Your task to perform on an android device: Clear all items from cart on costco. Add rayovac triple a to the cart on costco Image 0: 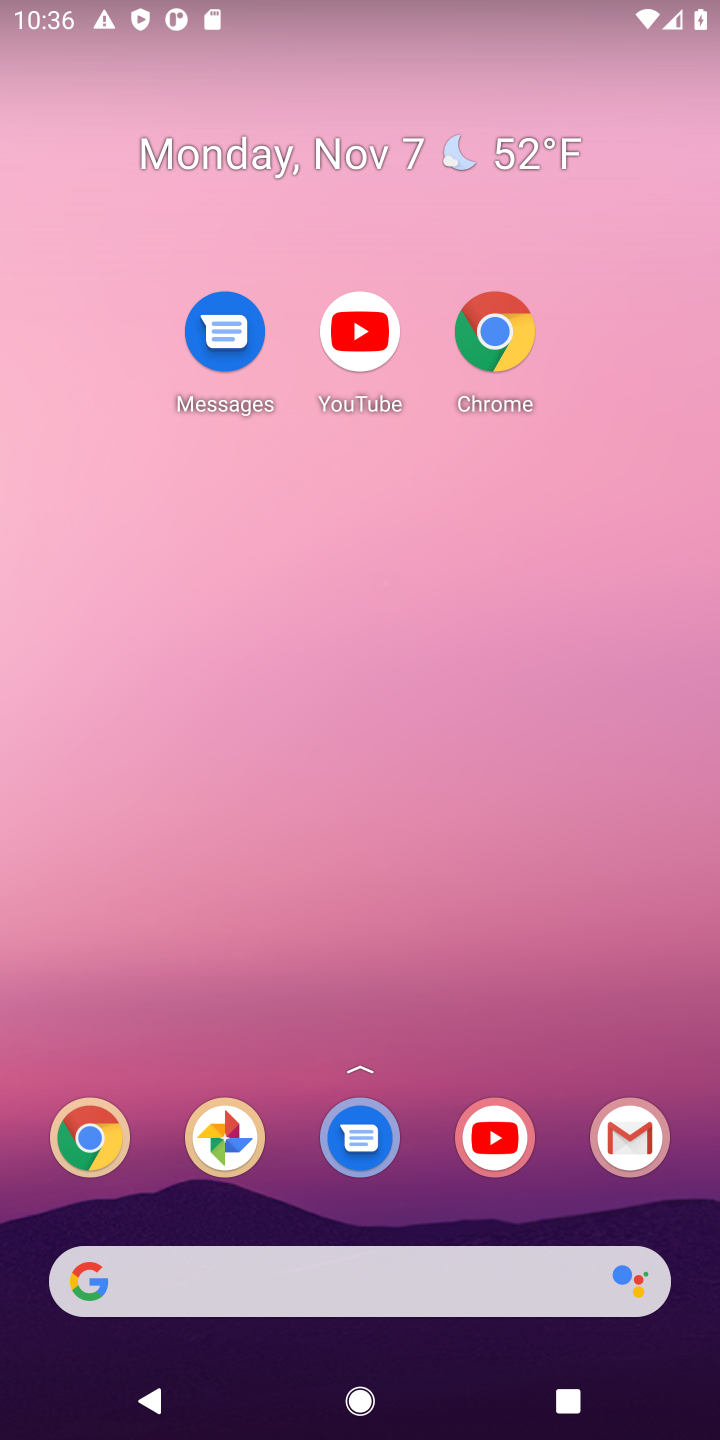
Step 0: press home button
Your task to perform on an android device: Clear all items from cart on costco. Add rayovac triple a to the cart on costco Image 1: 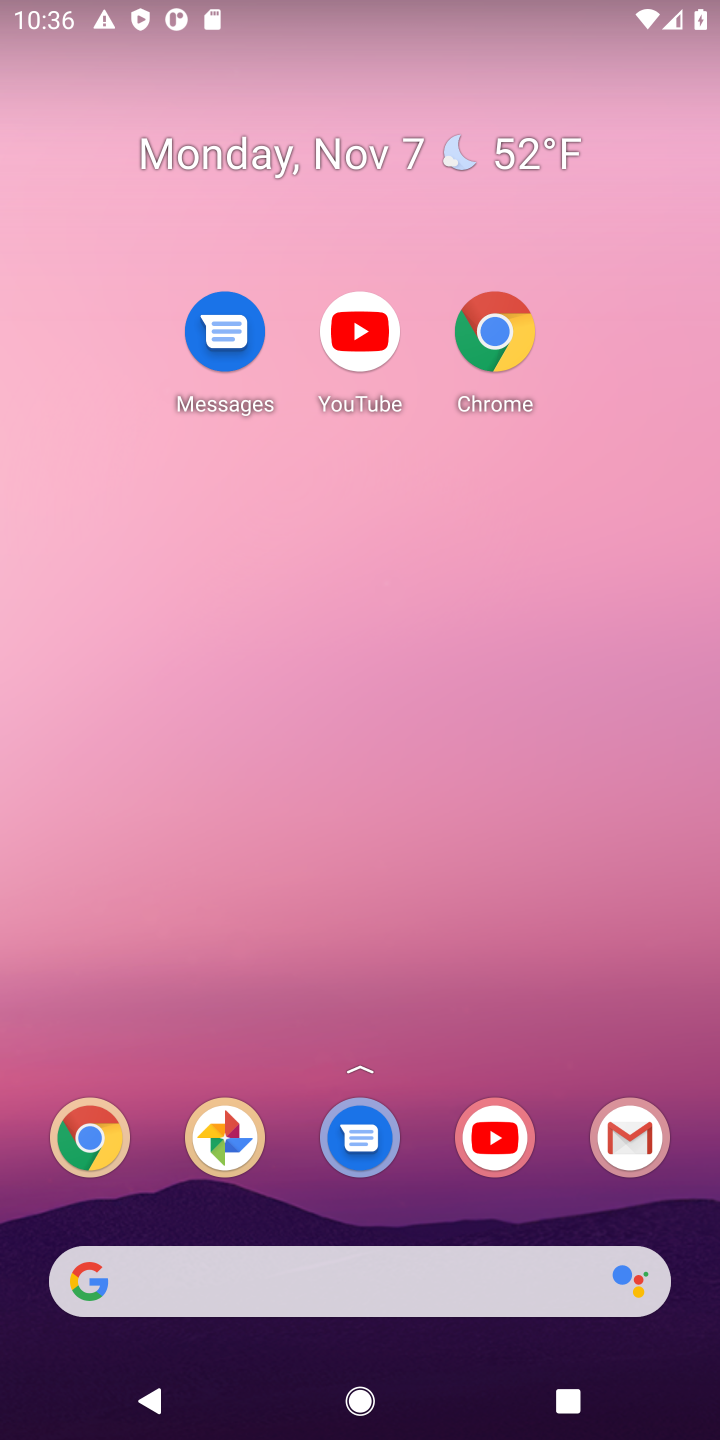
Step 1: click (249, 309)
Your task to perform on an android device: Clear all items from cart on costco. Add rayovac triple a to the cart on costco Image 2: 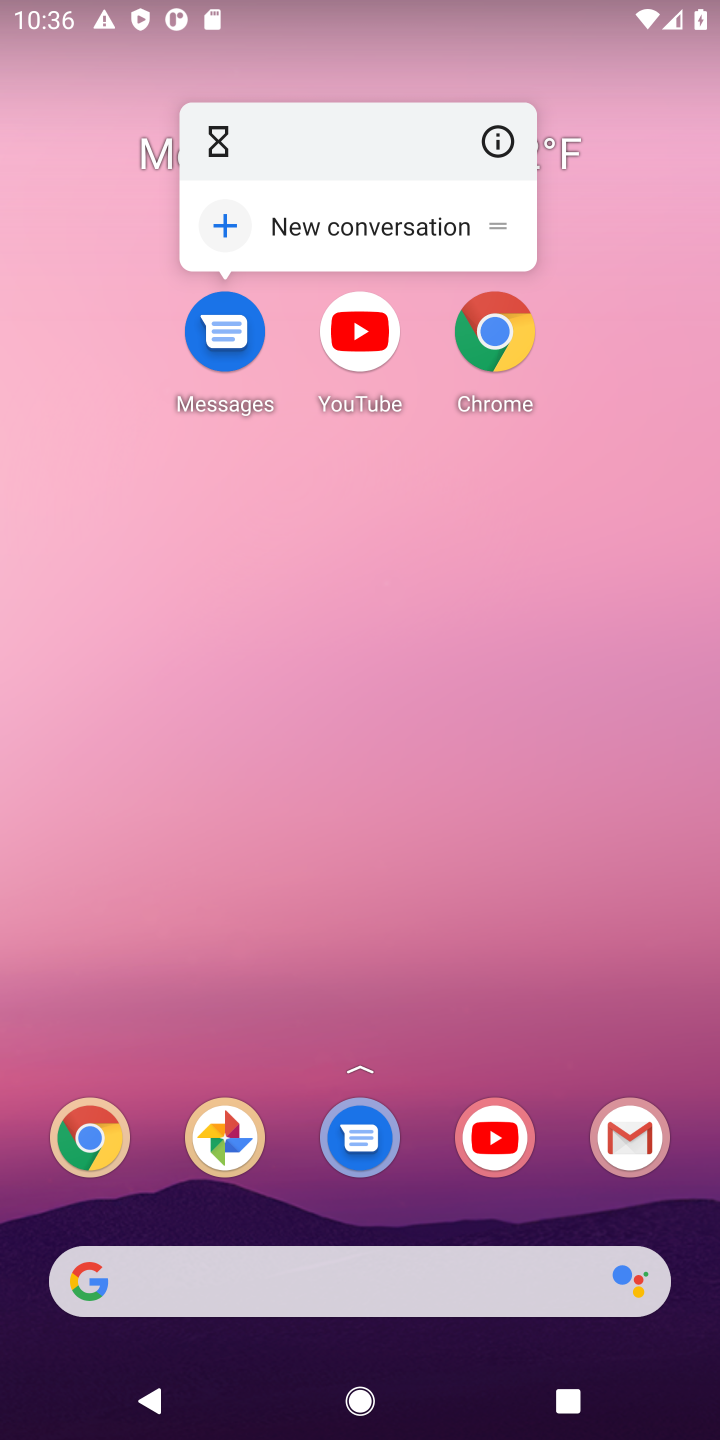
Step 2: click (303, 1214)
Your task to perform on an android device: Clear all items from cart on costco. Add rayovac triple a to the cart on costco Image 3: 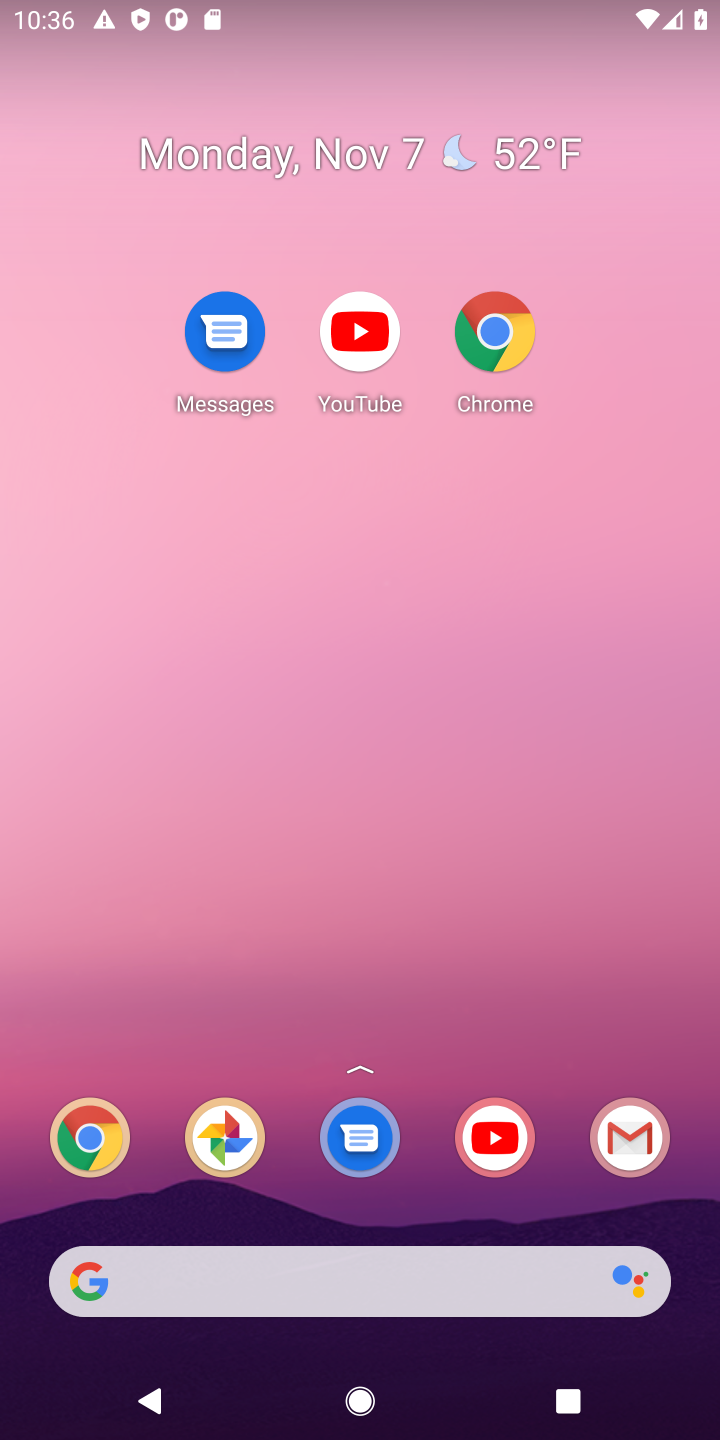
Step 3: drag from (294, 1237) to (196, 287)
Your task to perform on an android device: Clear all items from cart on costco. Add rayovac triple a to the cart on costco Image 4: 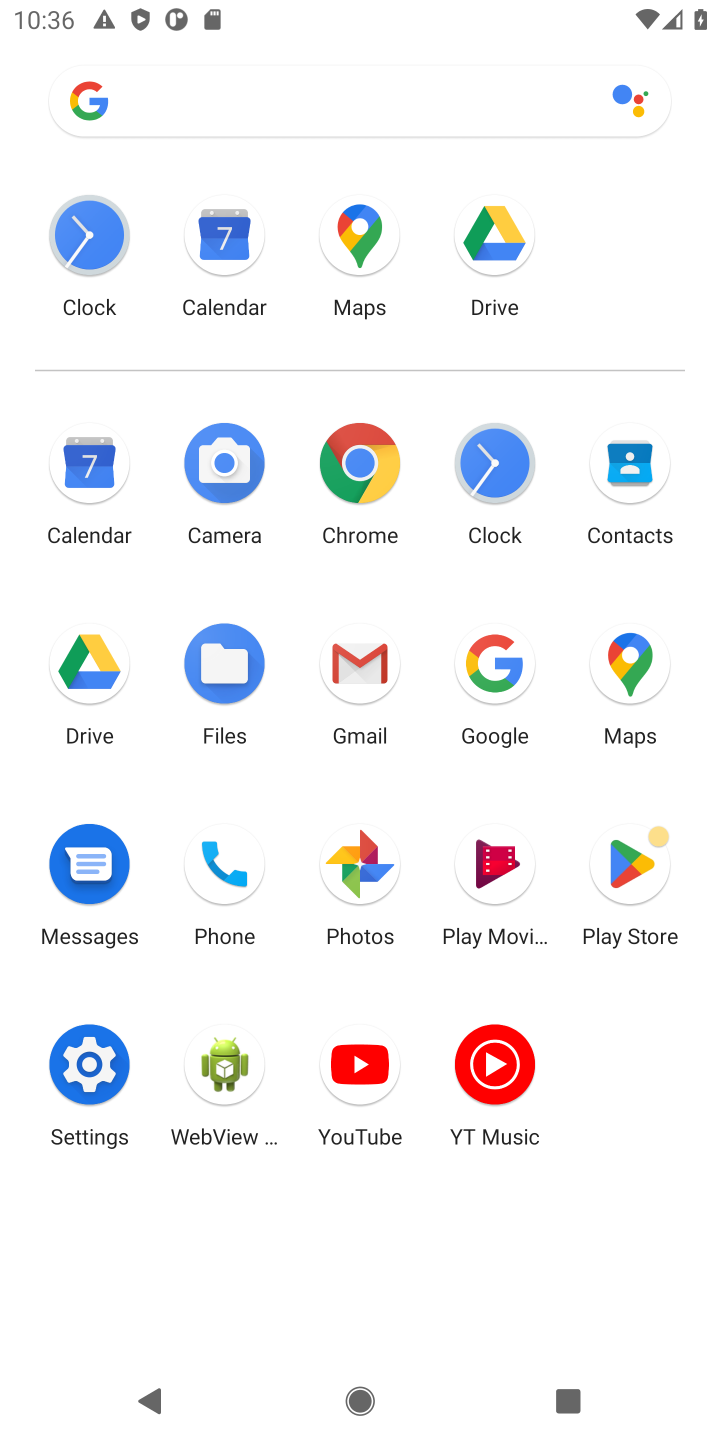
Step 4: click (362, 464)
Your task to perform on an android device: Clear all items from cart on costco. Add rayovac triple a to the cart on costco Image 5: 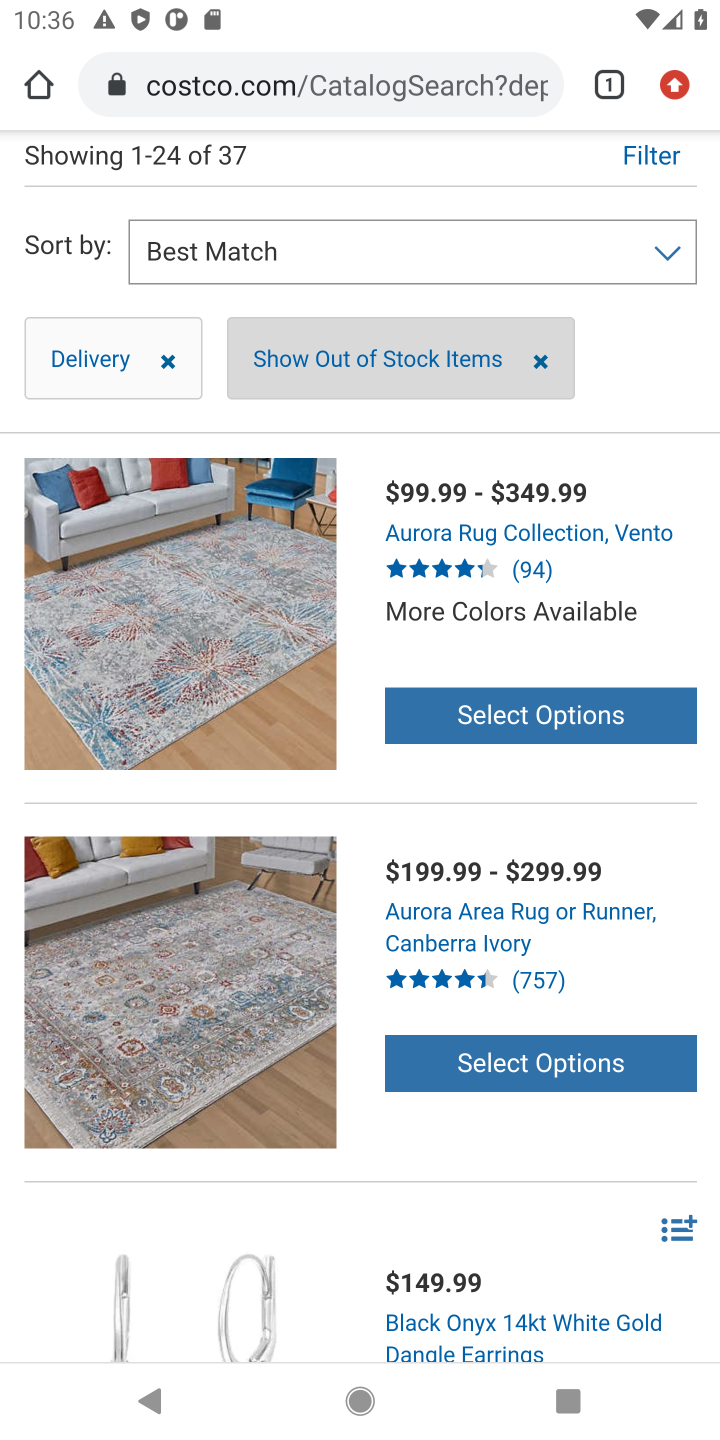
Step 5: drag from (464, 248) to (446, 1108)
Your task to perform on an android device: Clear all items from cart on costco. Add rayovac triple a to the cart on costco Image 6: 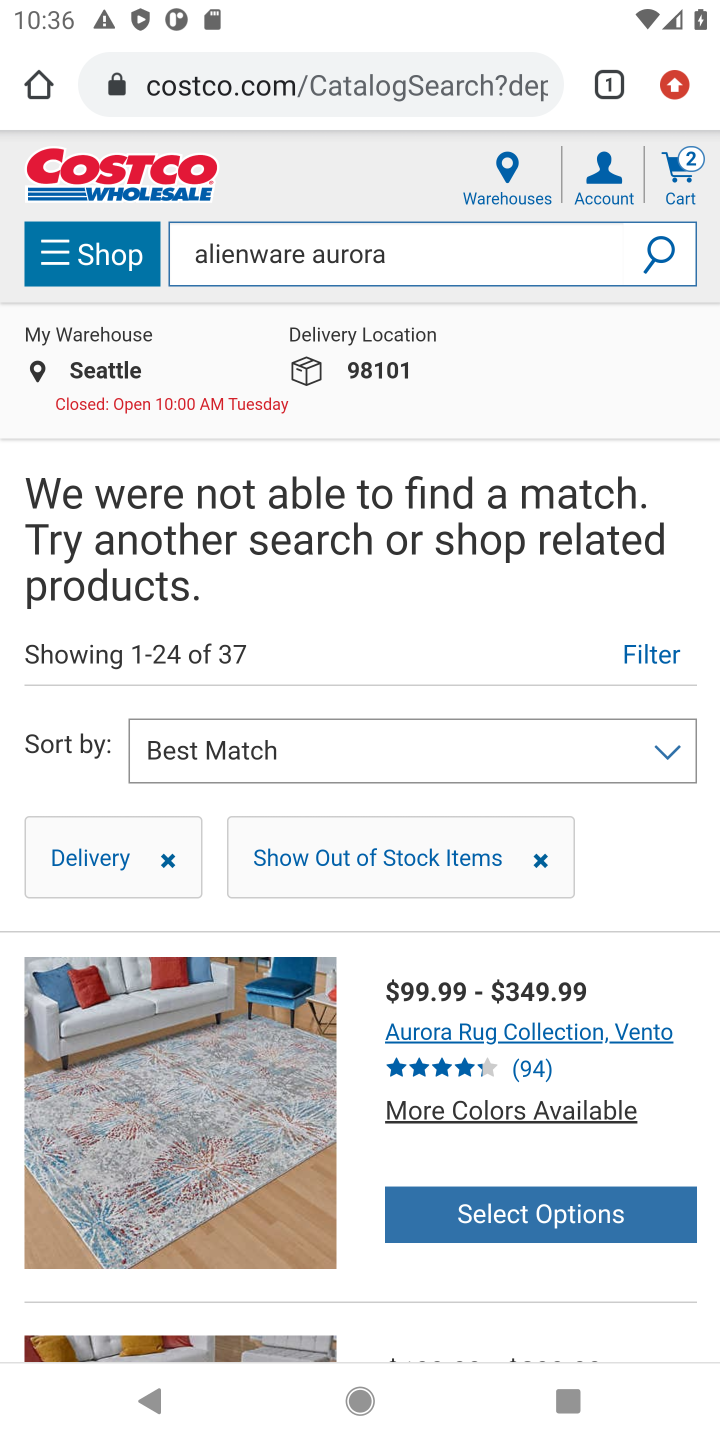
Step 6: click (696, 182)
Your task to perform on an android device: Clear all items from cart on costco. Add rayovac triple a to the cart on costco Image 7: 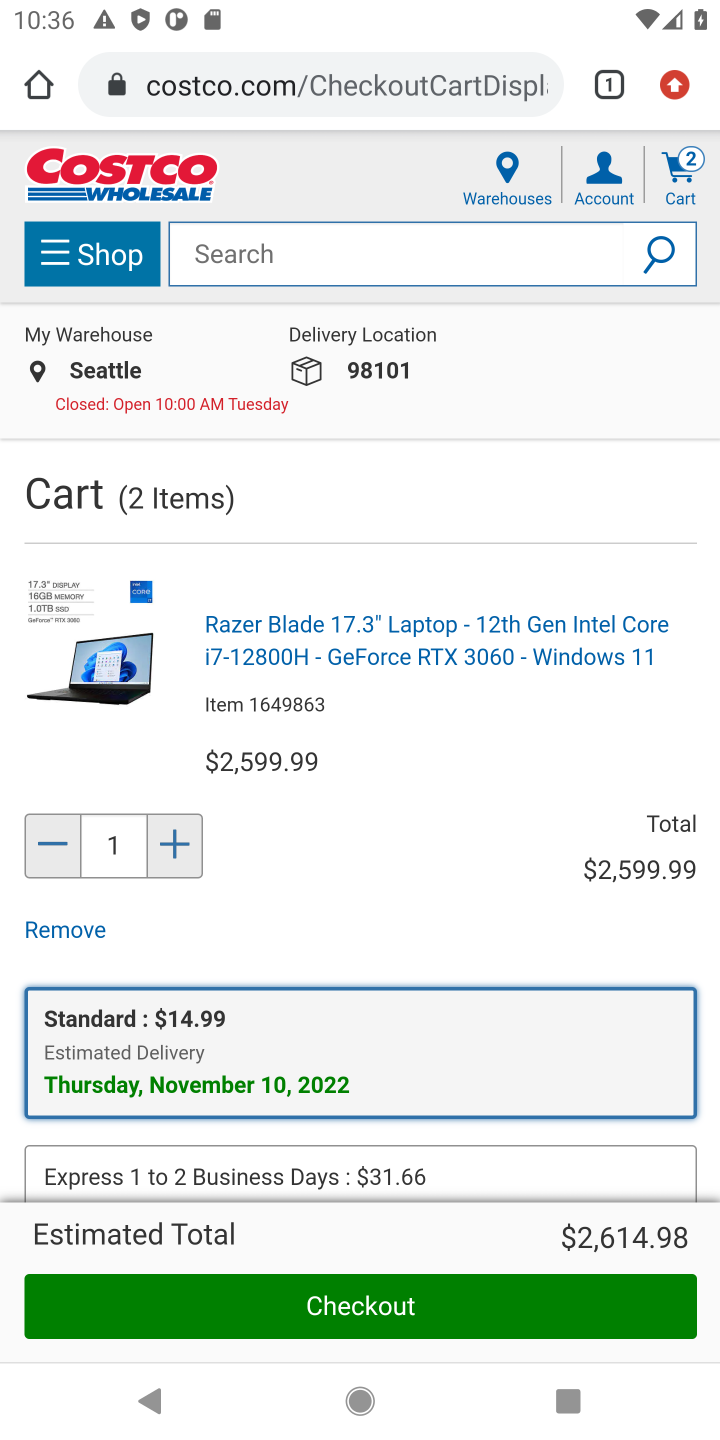
Step 7: drag from (310, 915) to (323, 546)
Your task to perform on an android device: Clear all items from cart on costco. Add rayovac triple a to the cart on costco Image 8: 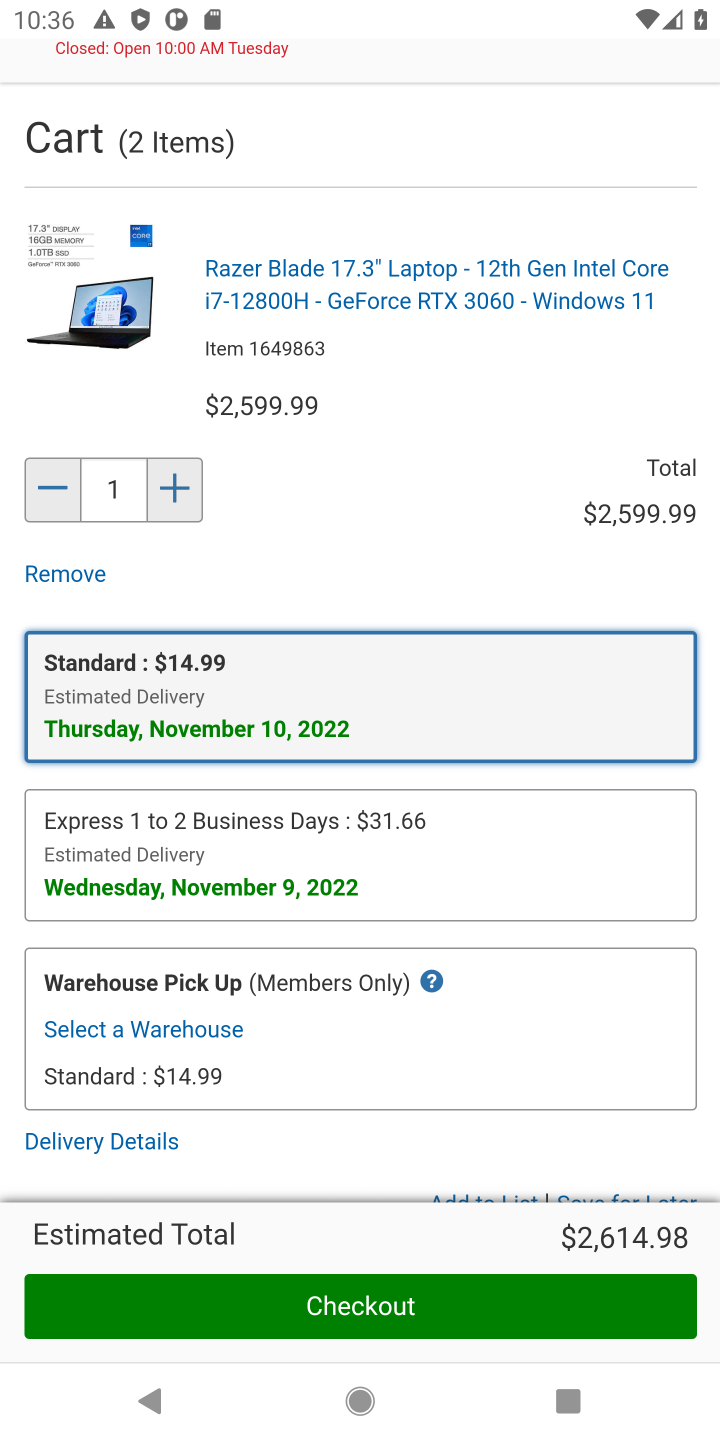
Step 8: click (82, 576)
Your task to perform on an android device: Clear all items from cart on costco. Add rayovac triple a to the cart on costco Image 9: 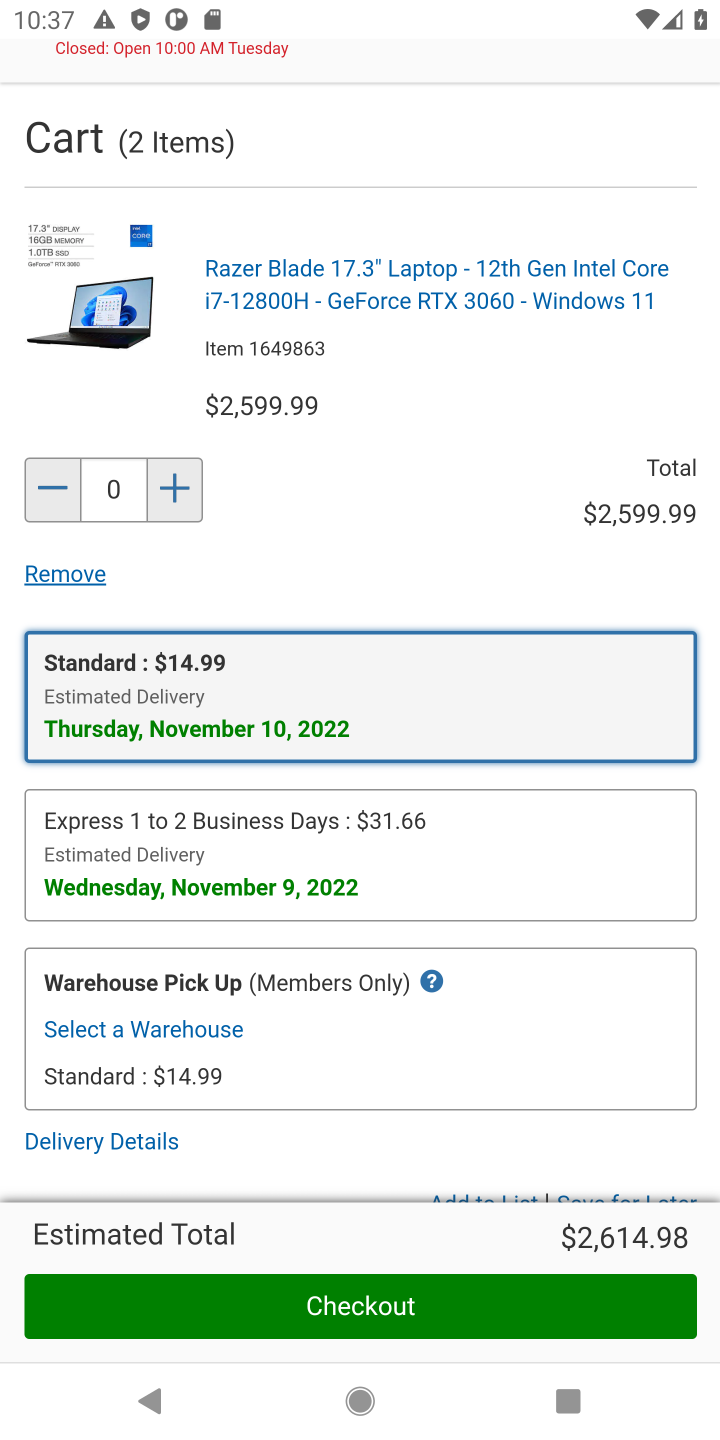
Step 9: click (69, 584)
Your task to perform on an android device: Clear all items from cart on costco. Add rayovac triple a to the cart on costco Image 10: 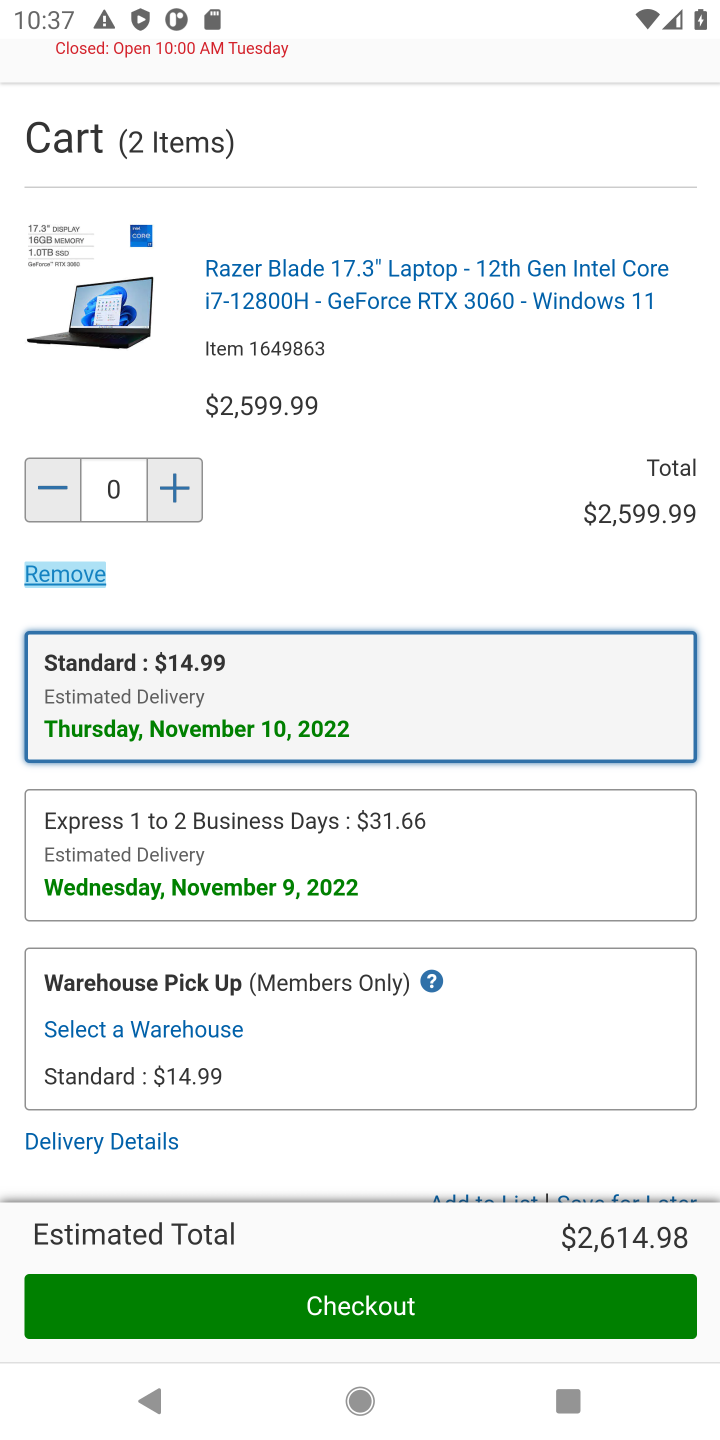
Step 10: click (69, 584)
Your task to perform on an android device: Clear all items from cart on costco. Add rayovac triple a to the cart on costco Image 11: 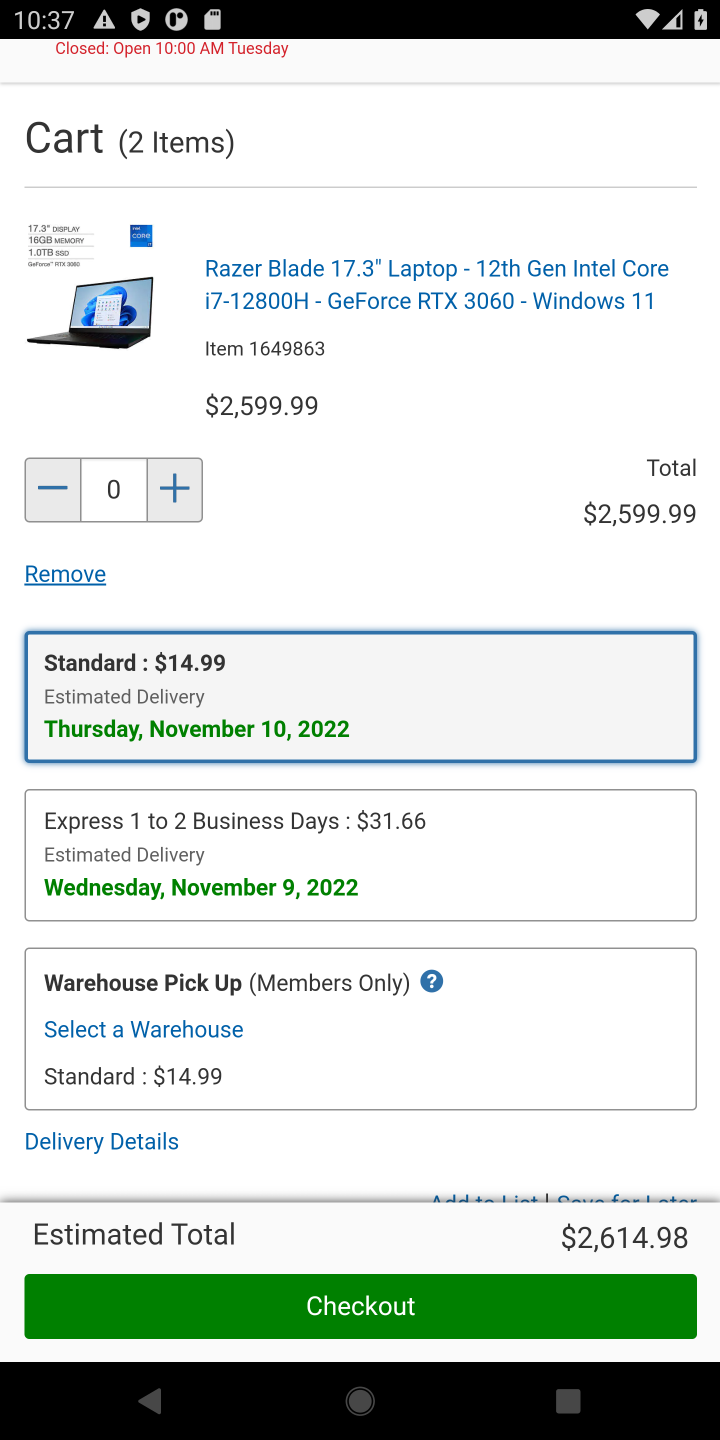
Step 11: click (69, 584)
Your task to perform on an android device: Clear all items from cart on costco. Add rayovac triple a to the cart on costco Image 12: 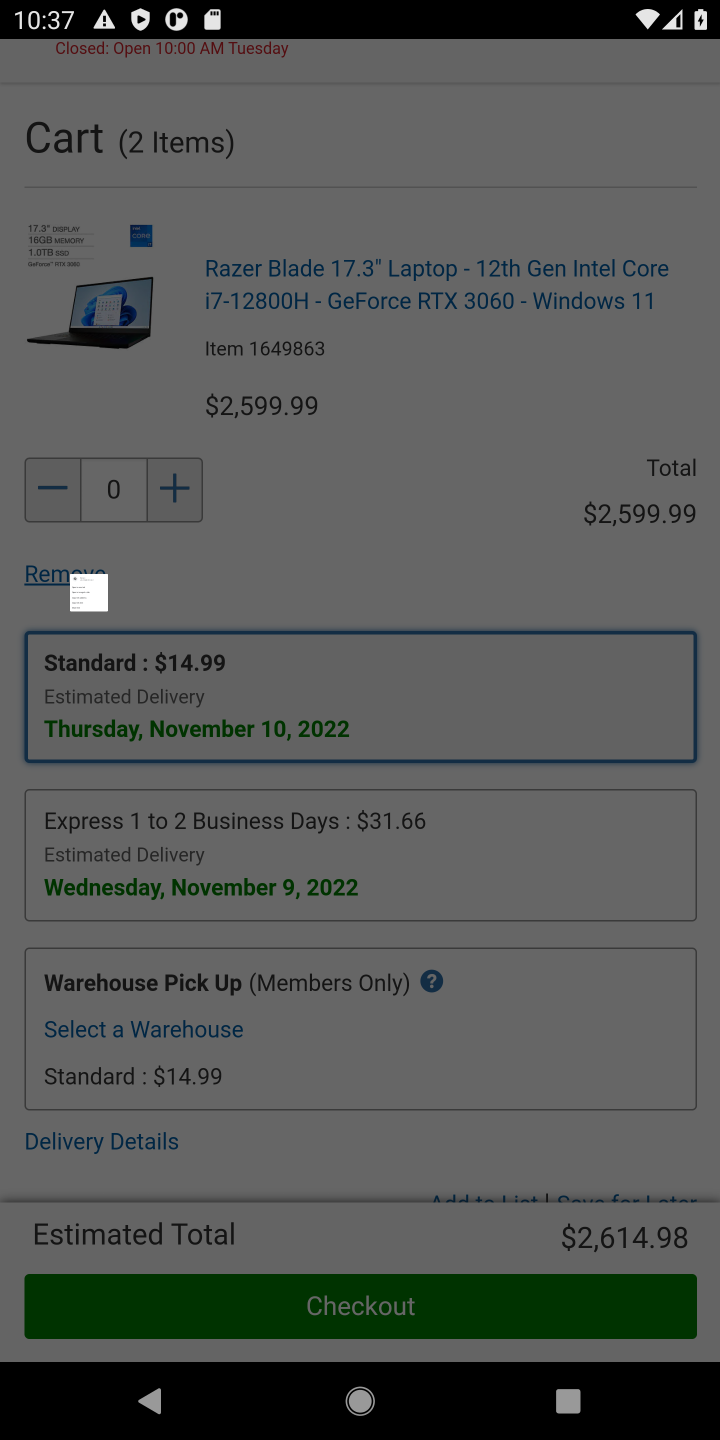
Step 12: click (69, 584)
Your task to perform on an android device: Clear all items from cart on costco. Add rayovac triple a to the cart on costco Image 13: 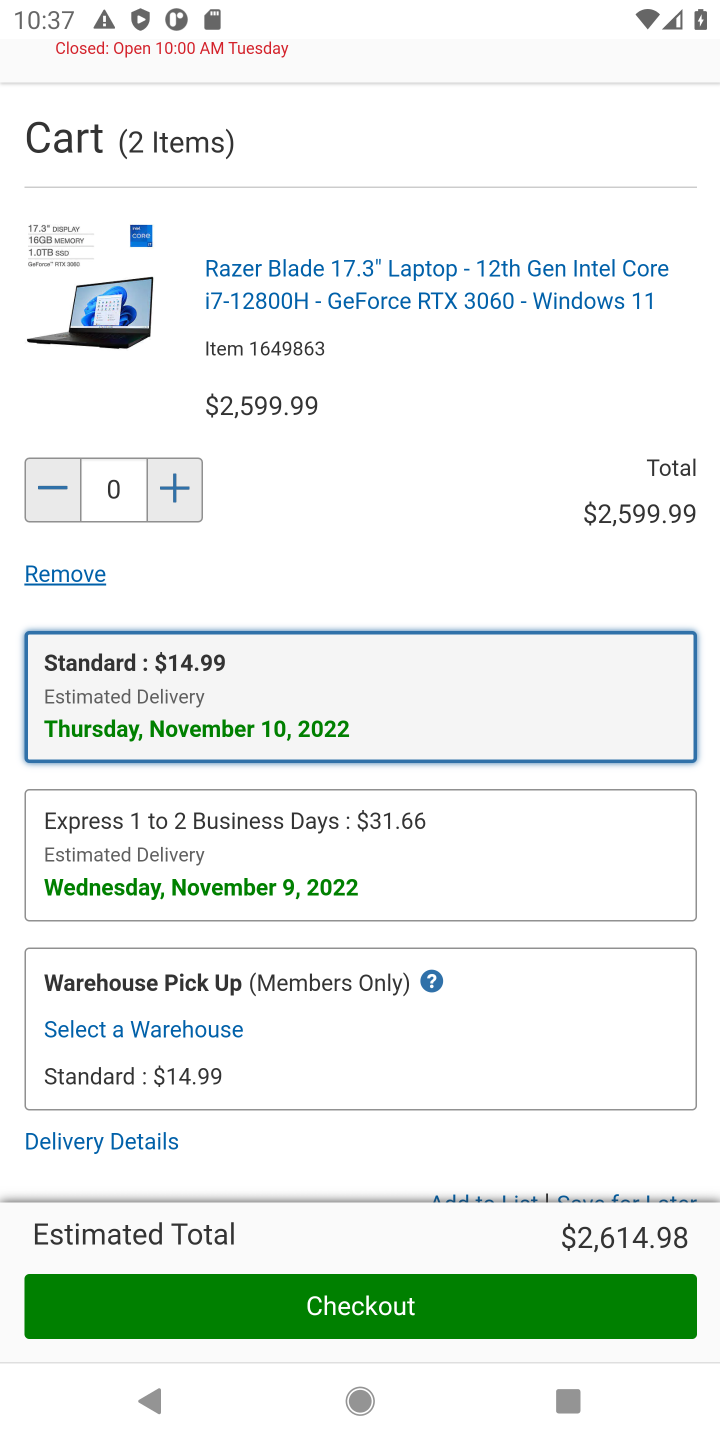
Step 13: click (69, 584)
Your task to perform on an android device: Clear all items from cart on costco. Add rayovac triple a to the cart on costco Image 14: 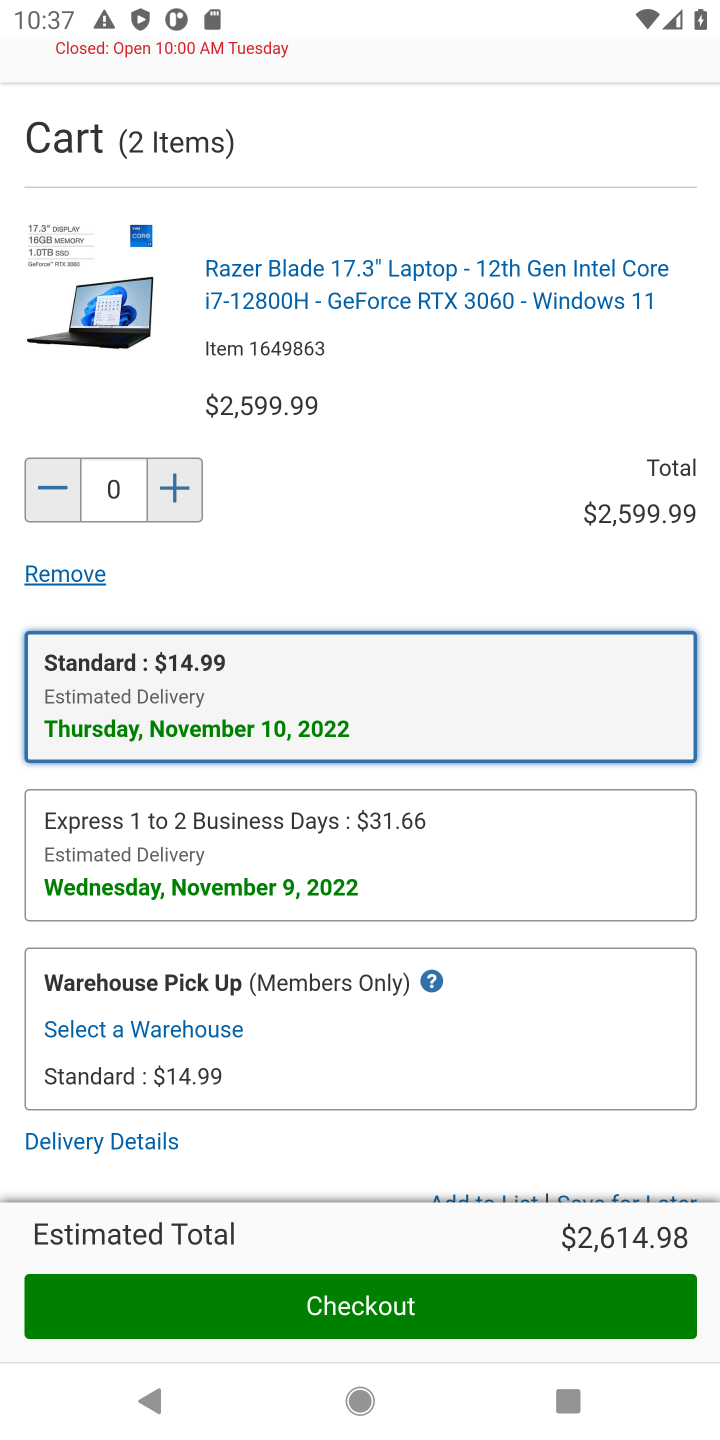
Step 14: click (69, 584)
Your task to perform on an android device: Clear all items from cart on costco. Add rayovac triple a to the cart on costco Image 15: 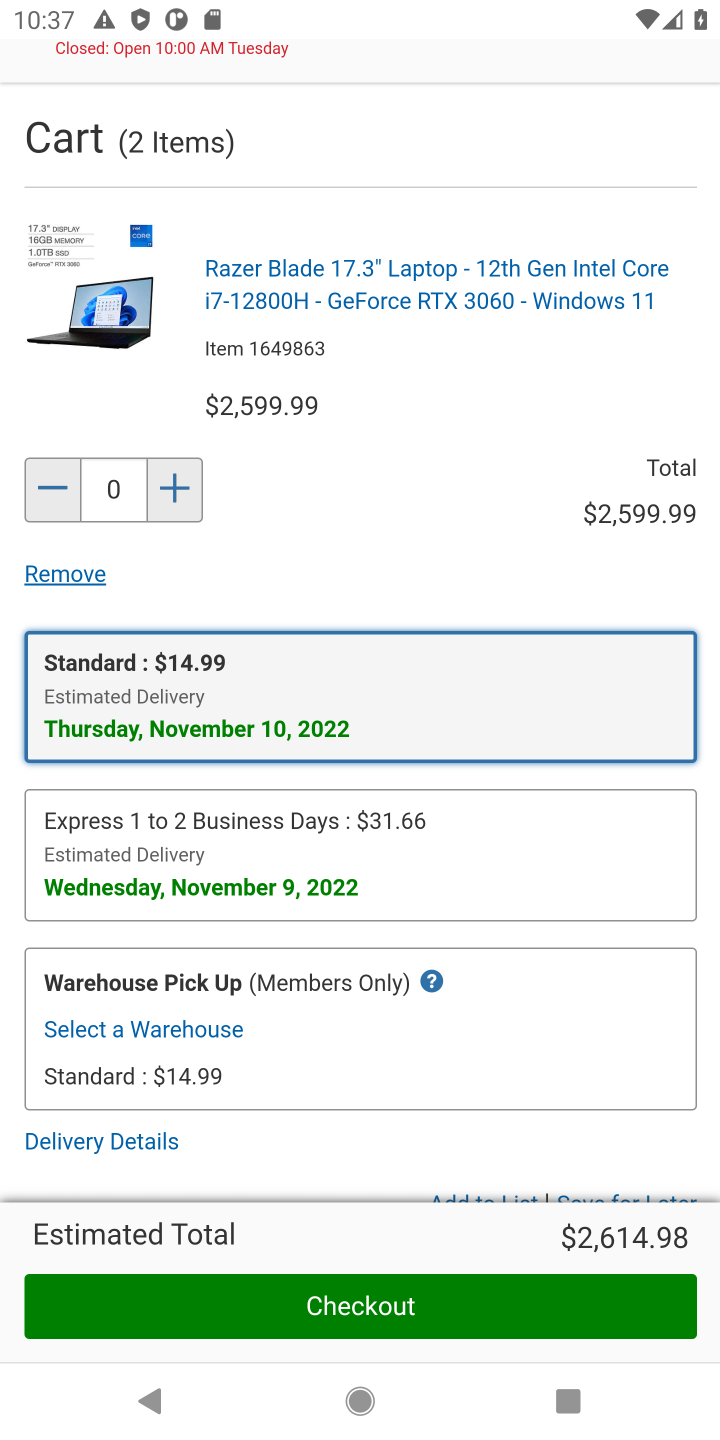
Step 15: click (62, 573)
Your task to perform on an android device: Clear all items from cart on costco. Add rayovac triple a to the cart on costco Image 16: 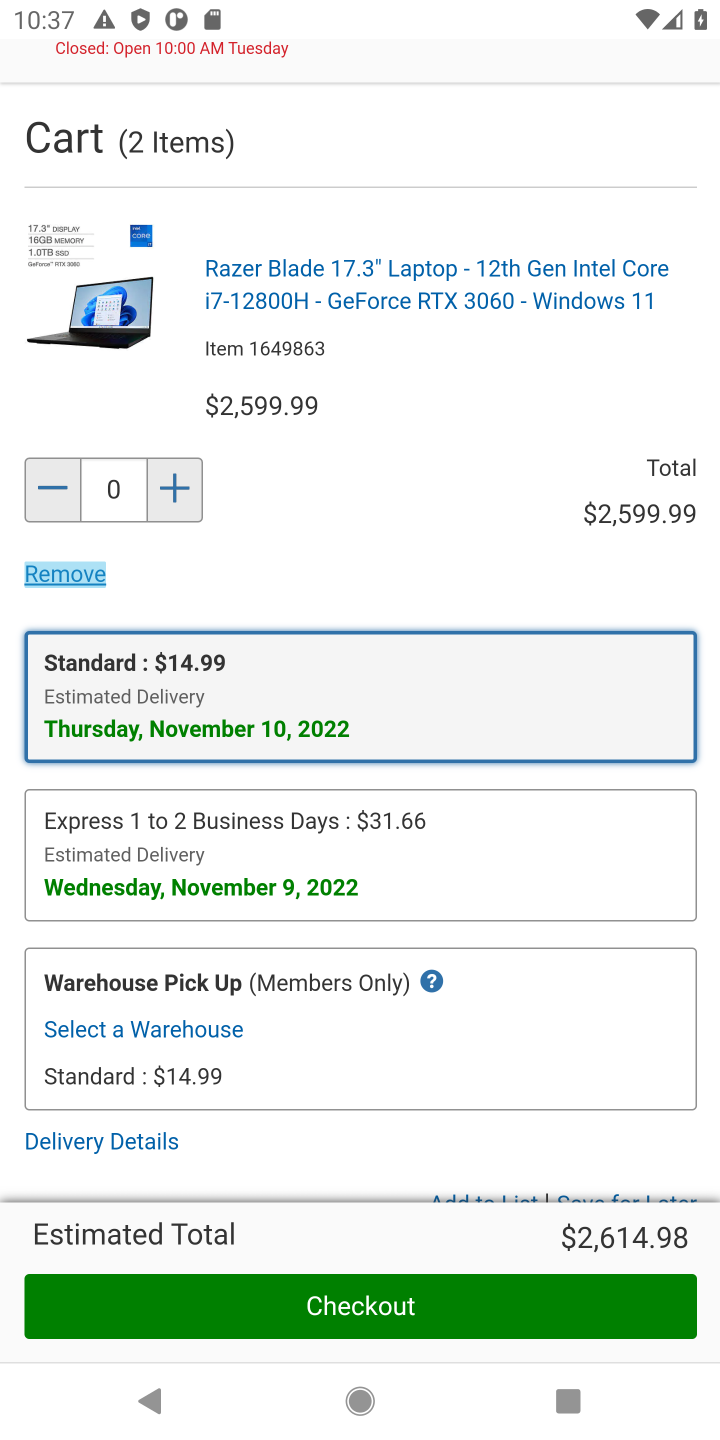
Step 16: click (62, 573)
Your task to perform on an android device: Clear all items from cart on costco. Add rayovac triple a to the cart on costco Image 17: 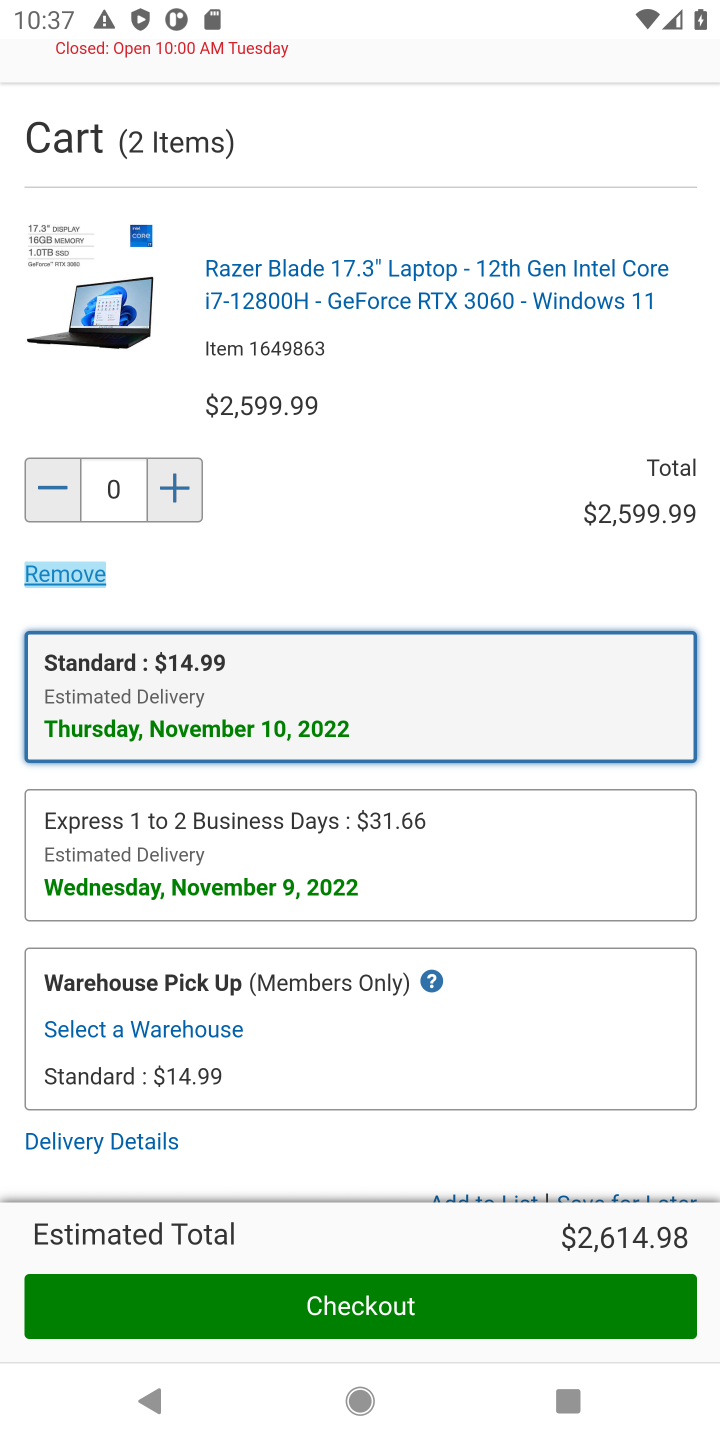
Step 17: click (62, 573)
Your task to perform on an android device: Clear all items from cart on costco. Add rayovac triple a to the cart on costco Image 18: 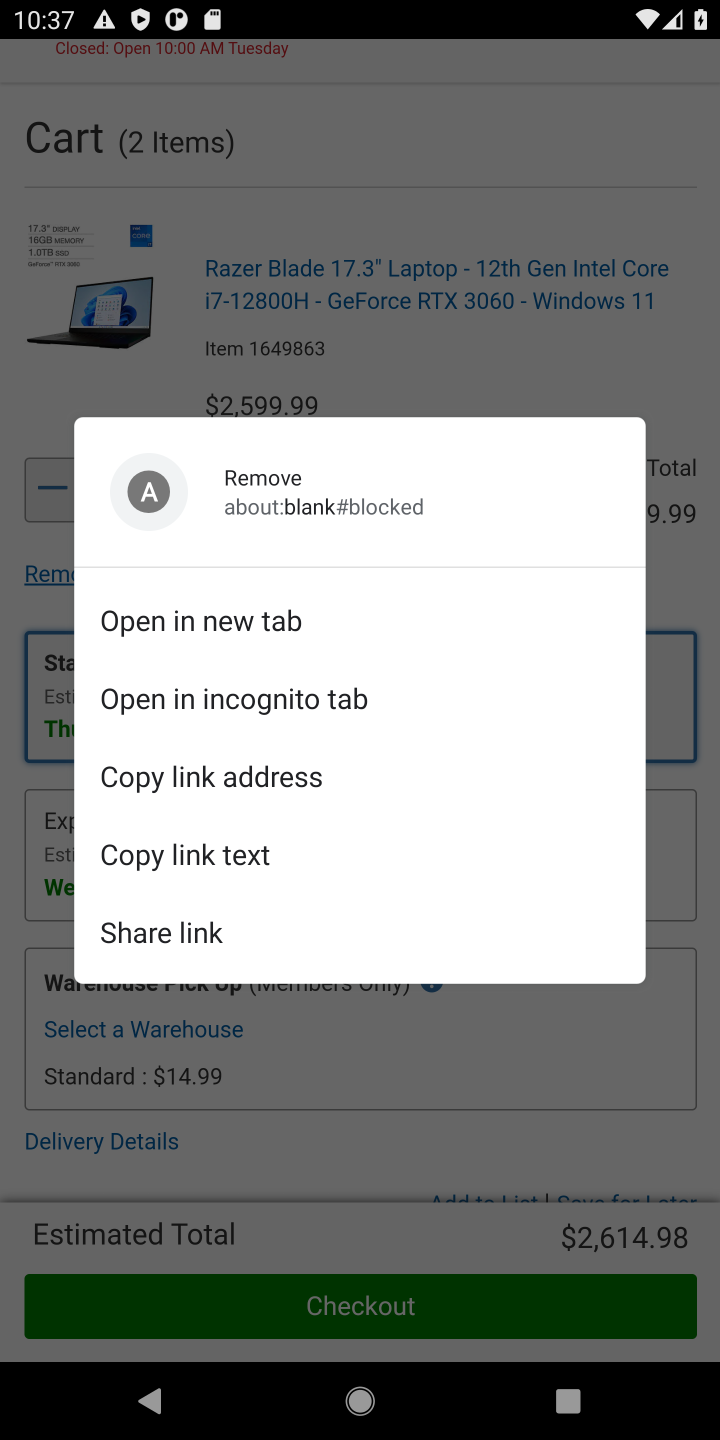
Step 18: click (27, 594)
Your task to perform on an android device: Clear all items from cart on costco. Add rayovac triple a to the cart on costco Image 19: 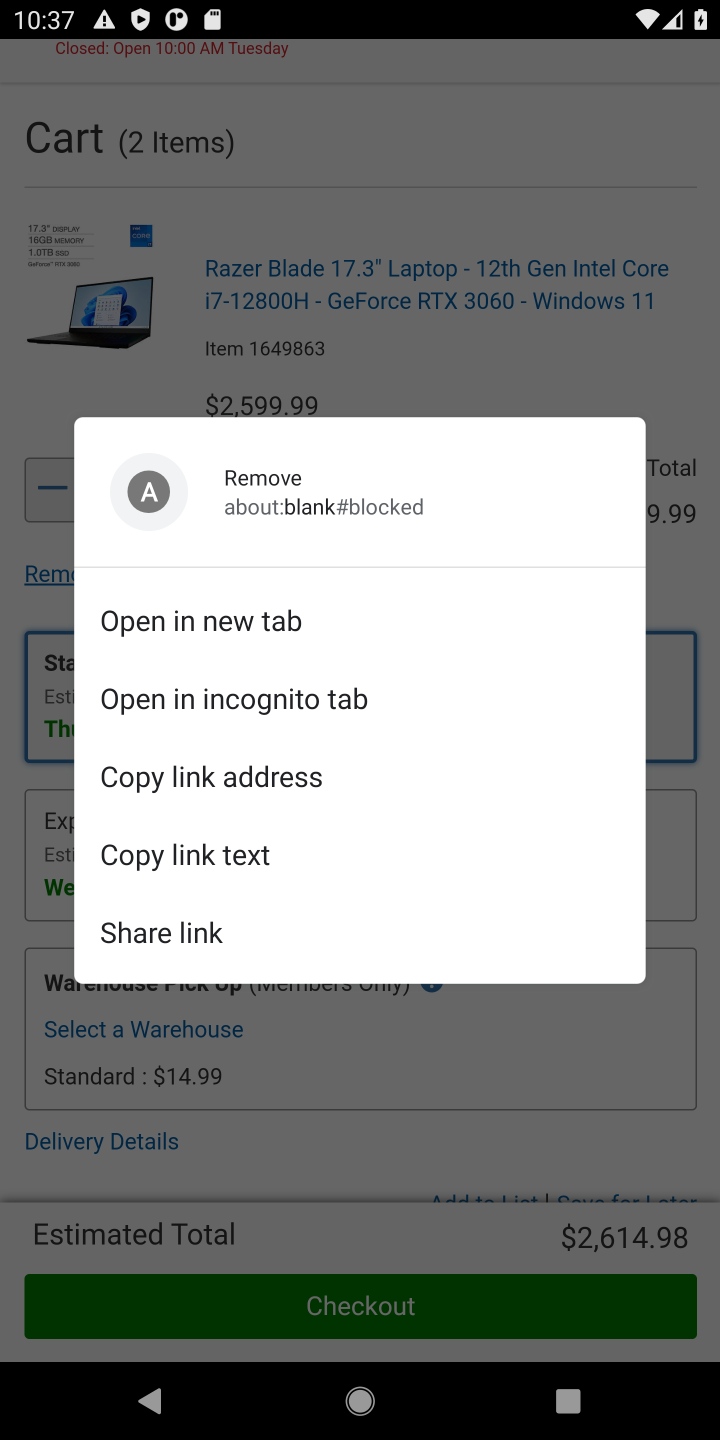
Step 19: click (27, 592)
Your task to perform on an android device: Clear all items from cart on costco. Add rayovac triple a to the cart on costco Image 20: 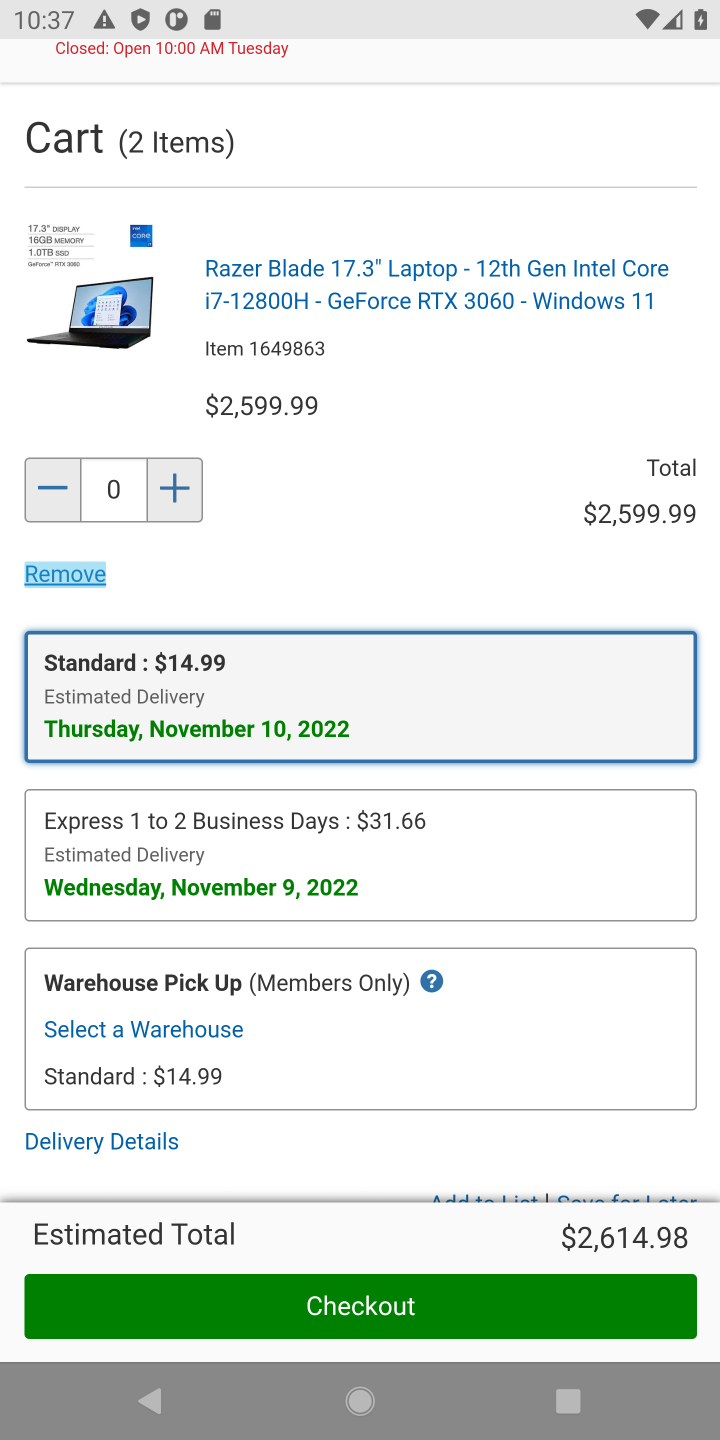
Step 20: click (27, 592)
Your task to perform on an android device: Clear all items from cart on costco. Add rayovac triple a to the cart on costco Image 21: 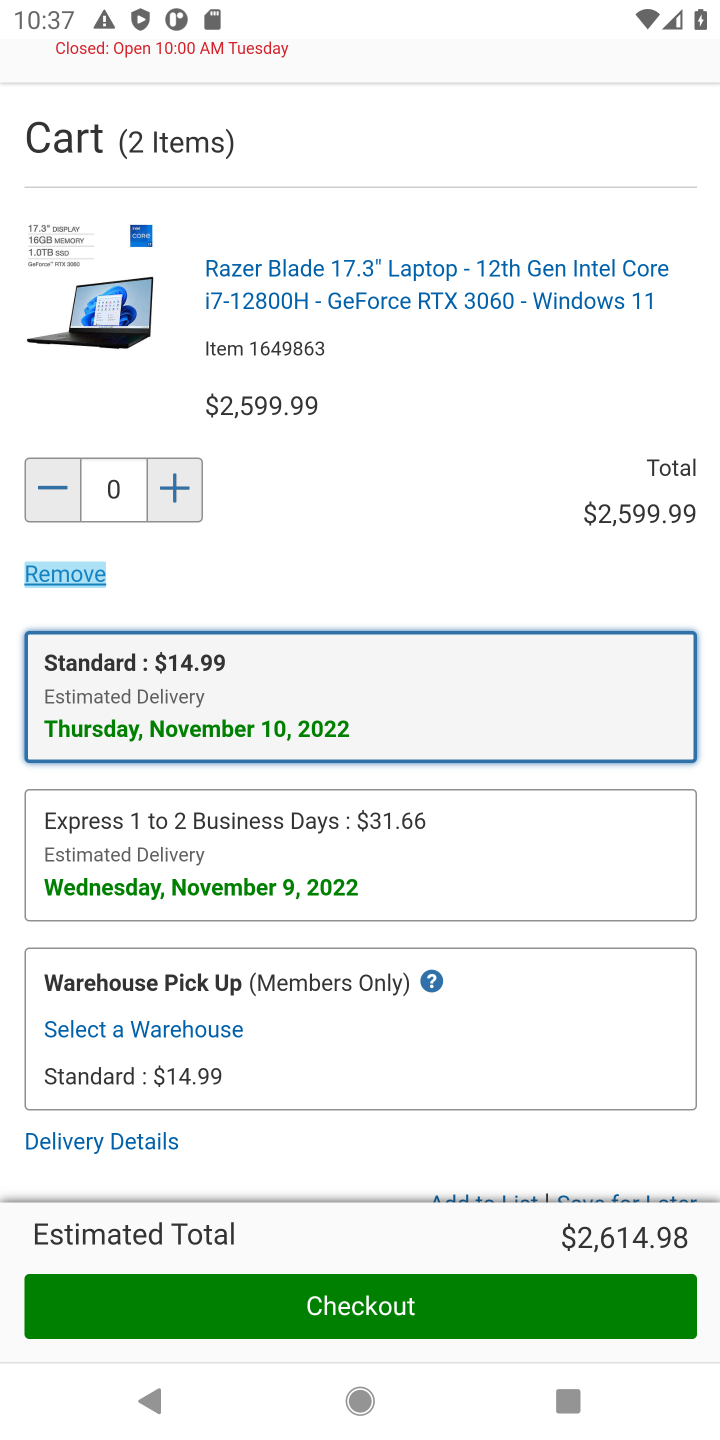
Step 21: click (27, 592)
Your task to perform on an android device: Clear all items from cart on costco. Add rayovac triple a to the cart on costco Image 22: 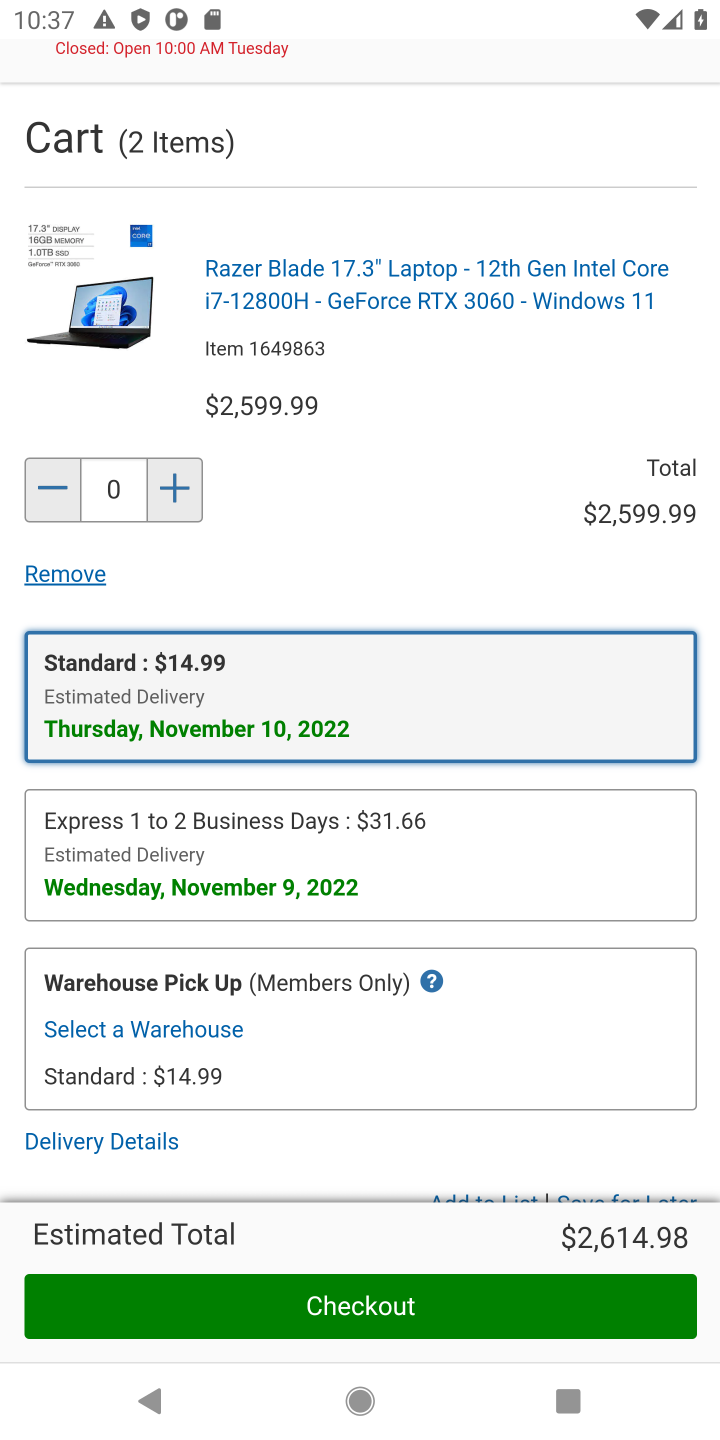
Step 22: task complete